Your task to perform on an android device: What's the weather going to be tomorrow? Image 0: 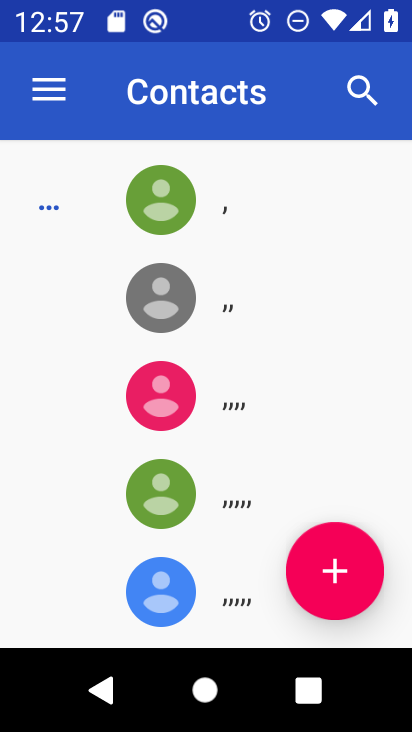
Step 0: press home button
Your task to perform on an android device: What's the weather going to be tomorrow? Image 1: 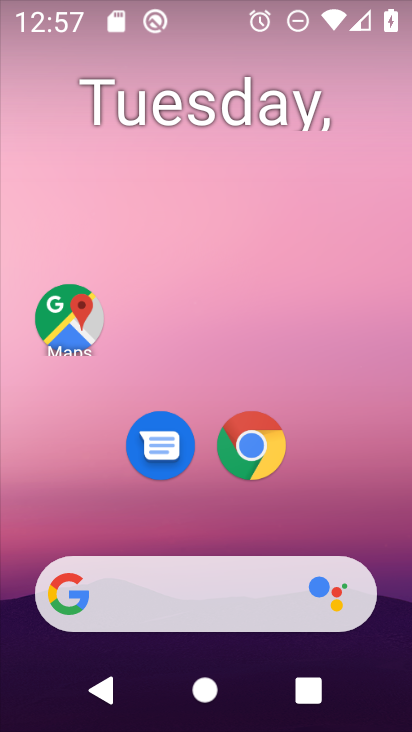
Step 1: drag from (302, 536) to (321, 284)
Your task to perform on an android device: What's the weather going to be tomorrow? Image 2: 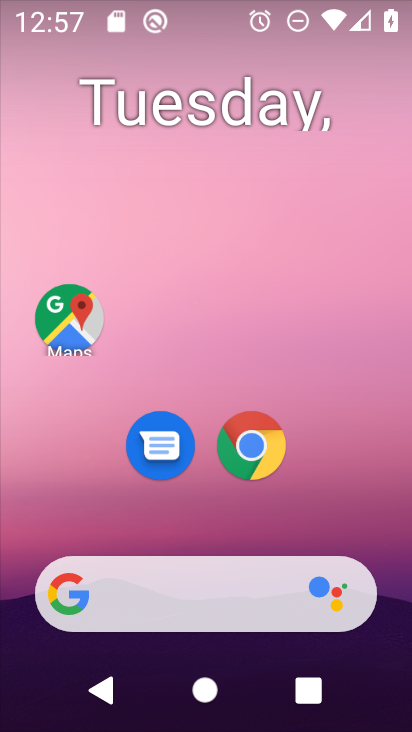
Step 2: drag from (293, 540) to (320, 250)
Your task to perform on an android device: What's the weather going to be tomorrow? Image 3: 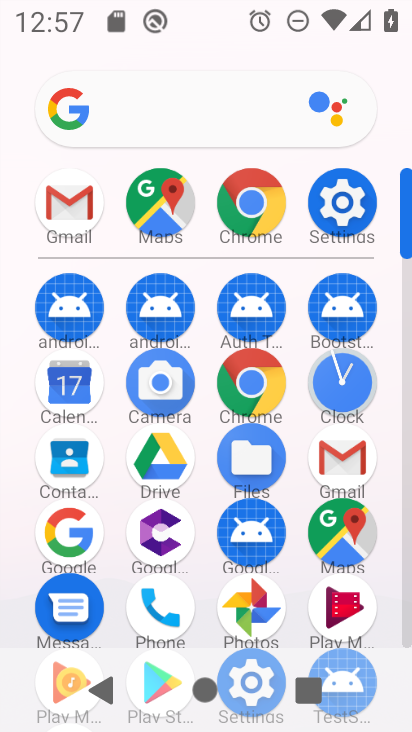
Step 3: drag from (182, 565) to (218, 256)
Your task to perform on an android device: What's the weather going to be tomorrow? Image 4: 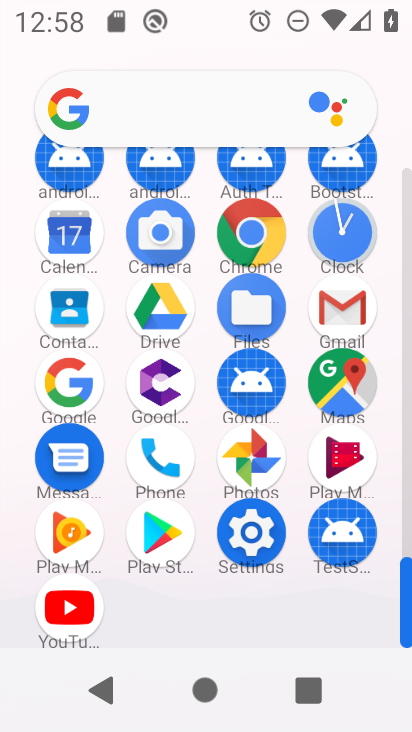
Step 4: click (237, 232)
Your task to perform on an android device: What's the weather going to be tomorrow? Image 5: 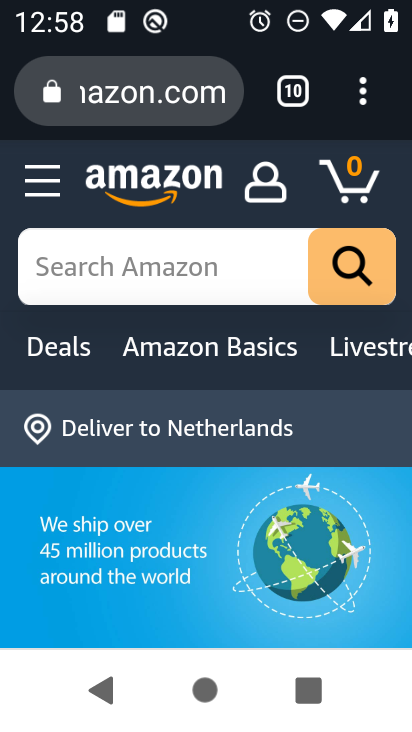
Step 5: click (366, 81)
Your task to perform on an android device: What's the weather going to be tomorrow? Image 6: 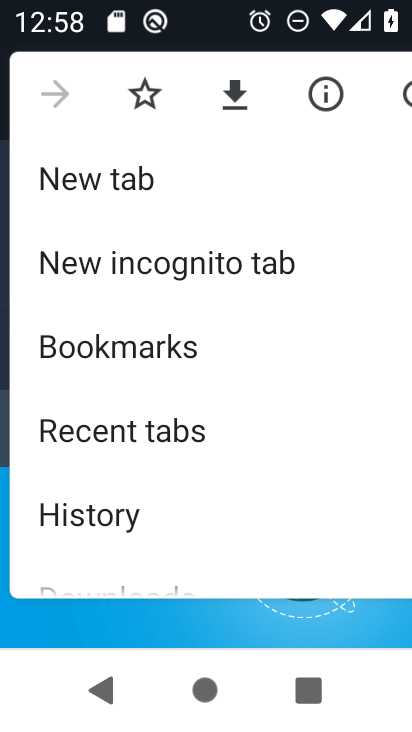
Step 6: click (125, 169)
Your task to perform on an android device: What's the weather going to be tomorrow? Image 7: 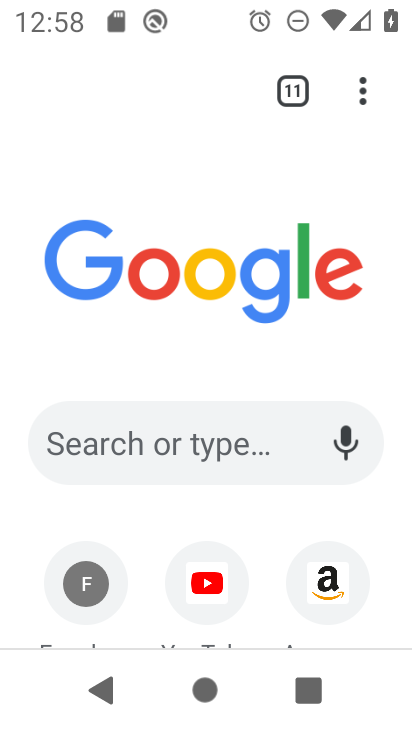
Step 7: click (115, 433)
Your task to perform on an android device: What's the weather going to be tomorrow? Image 8: 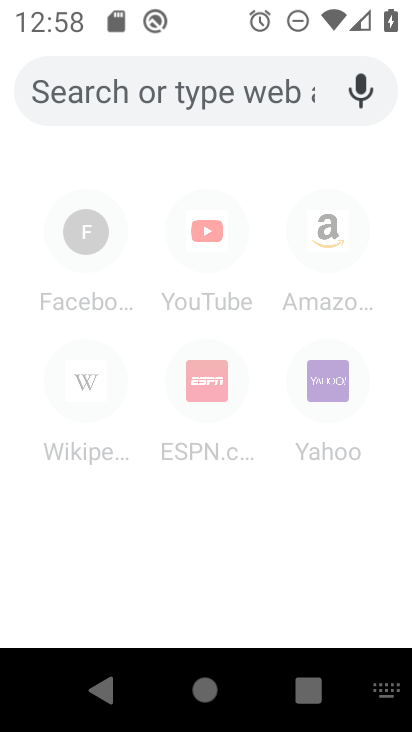
Step 8: type "What's the weather going to be tomorrow?"
Your task to perform on an android device: What's the weather going to be tomorrow? Image 9: 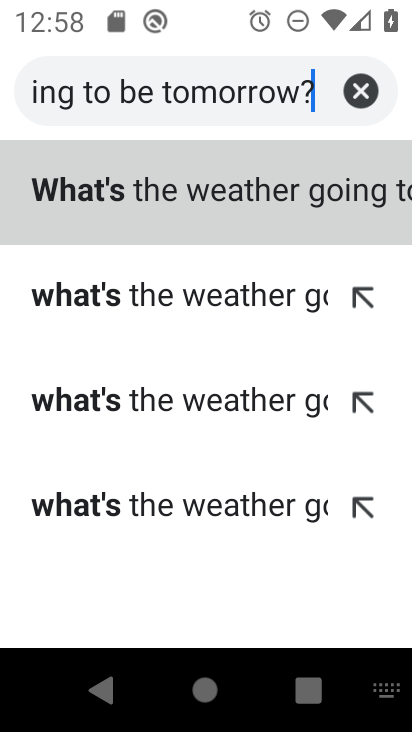
Step 9: click (187, 143)
Your task to perform on an android device: What's the weather going to be tomorrow? Image 10: 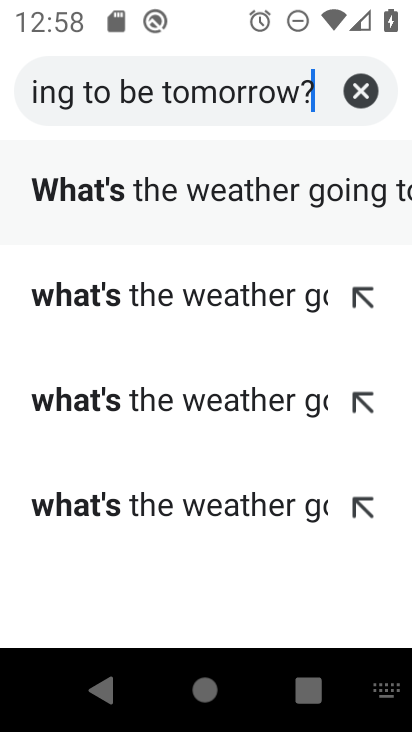
Step 10: click (200, 189)
Your task to perform on an android device: What's the weather going to be tomorrow? Image 11: 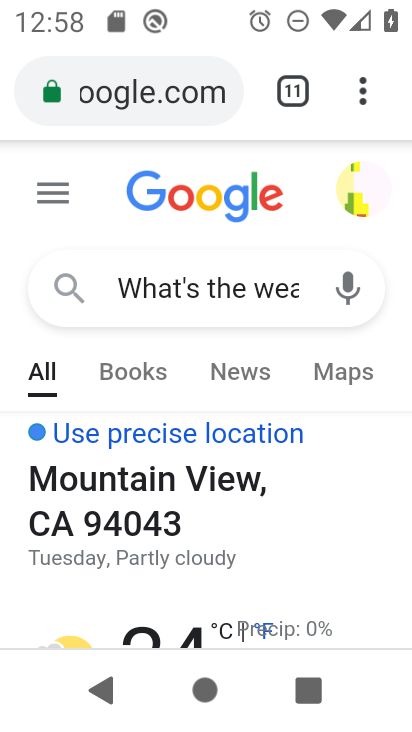
Step 11: task complete